Your task to perform on an android device: open app "ColorNote Notepad Notes" (install if not already installed) Image 0: 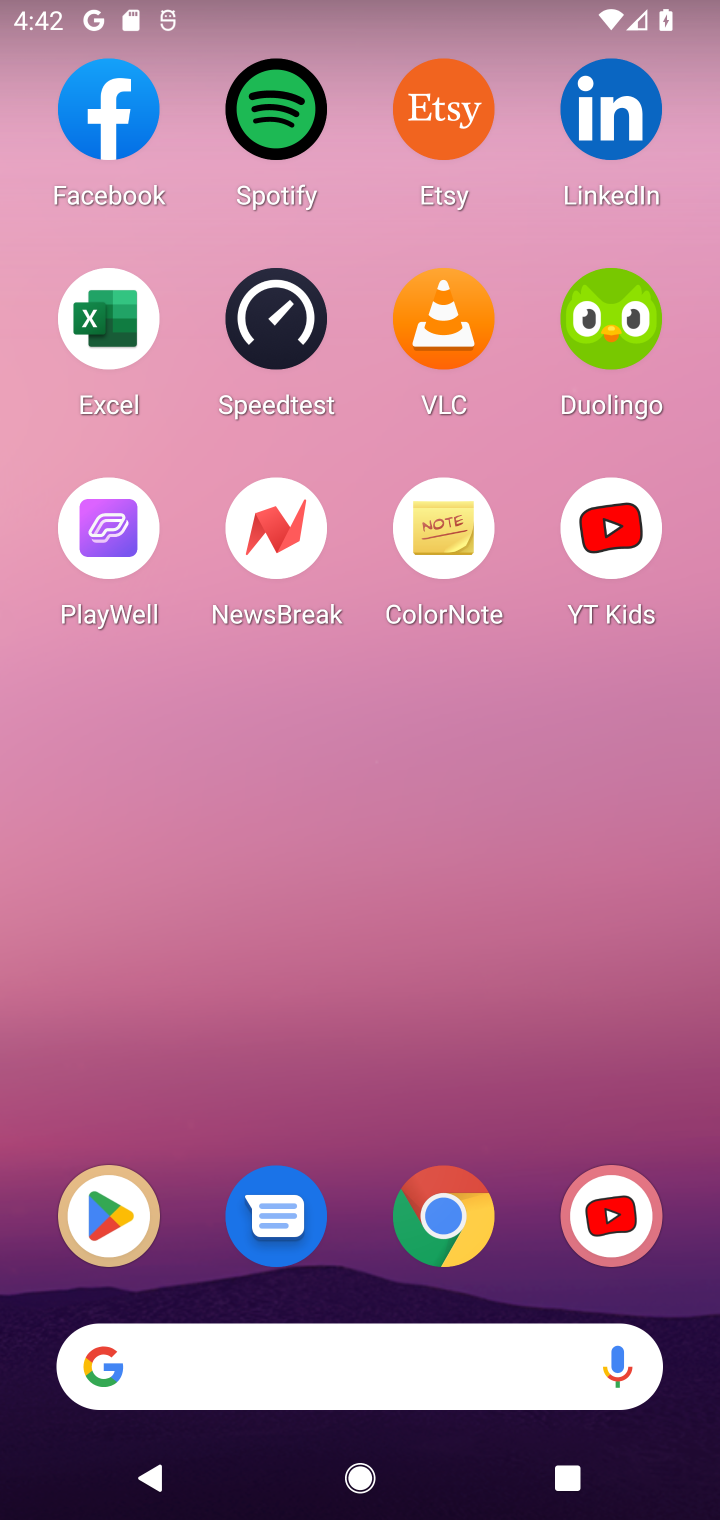
Step 0: click (87, 1218)
Your task to perform on an android device: open app "ColorNote Notepad Notes" (install if not already installed) Image 1: 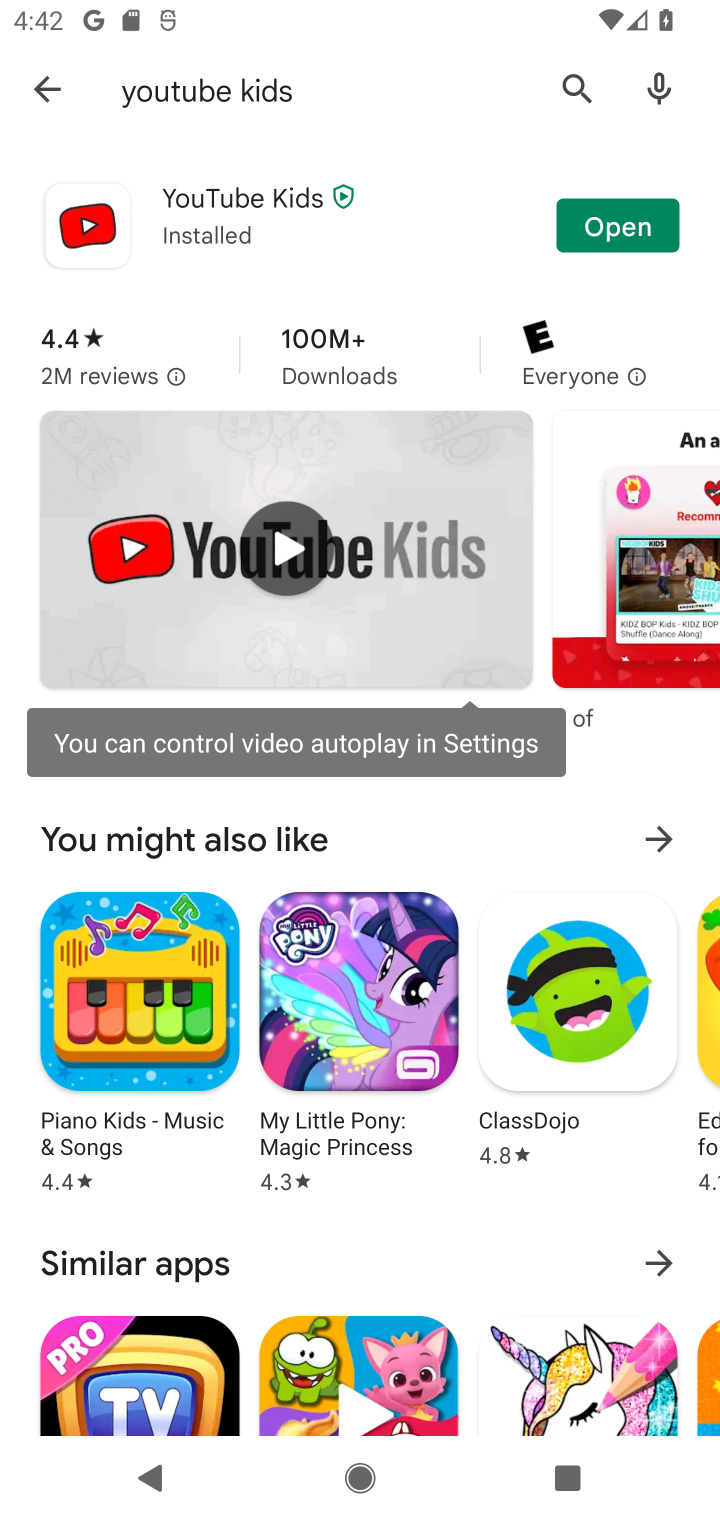
Step 1: click (575, 118)
Your task to perform on an android device: open app "ColorNote Notepad Notes" (install if not already installed) Image 2: 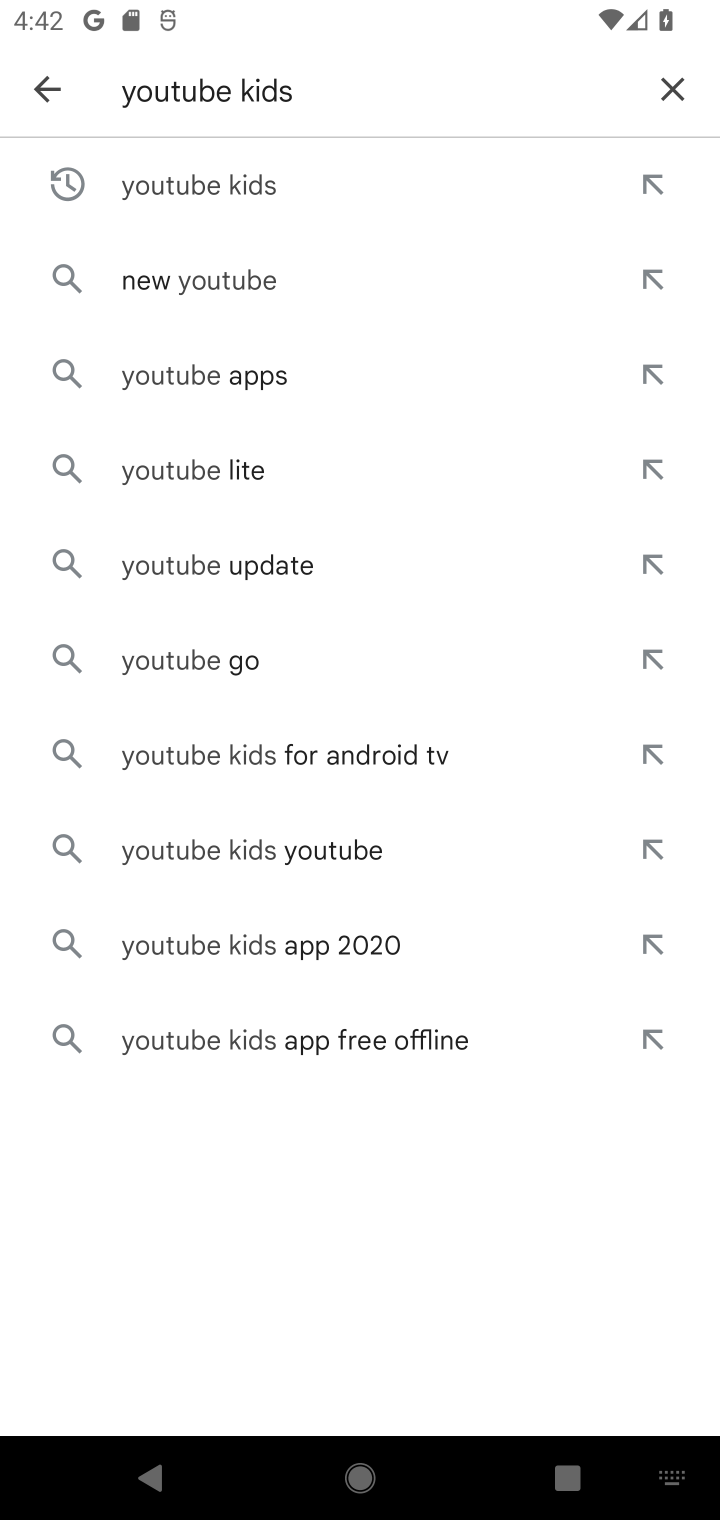
Step 2: click (662, 96)
Your task to perform on an android device: open app "ColorNote Notepad Notes" (install if not already installed) Image 3: 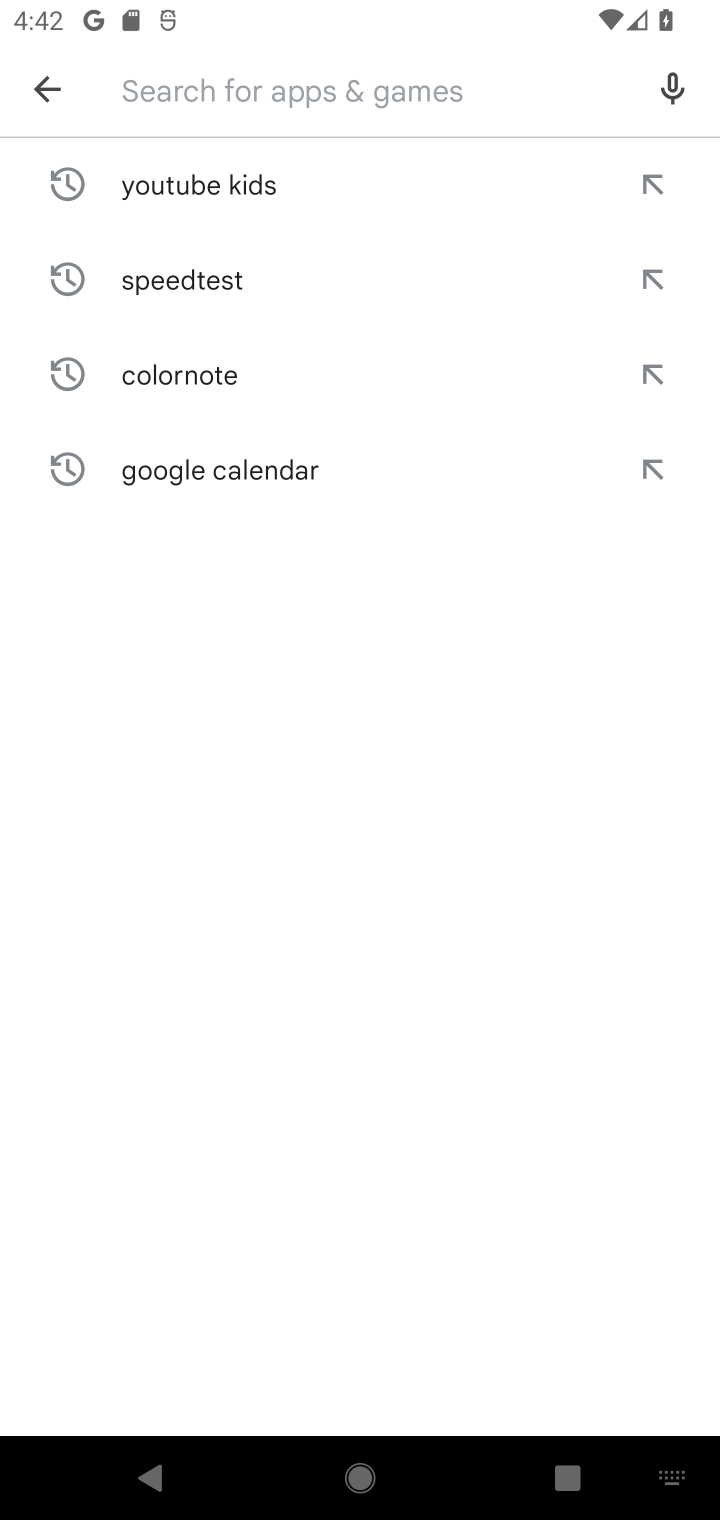
Step 3: type "colornotepad"
Your task to perform on an android device: open app "ColorNote Notepad Notes" (install if not already installed) Image 4: 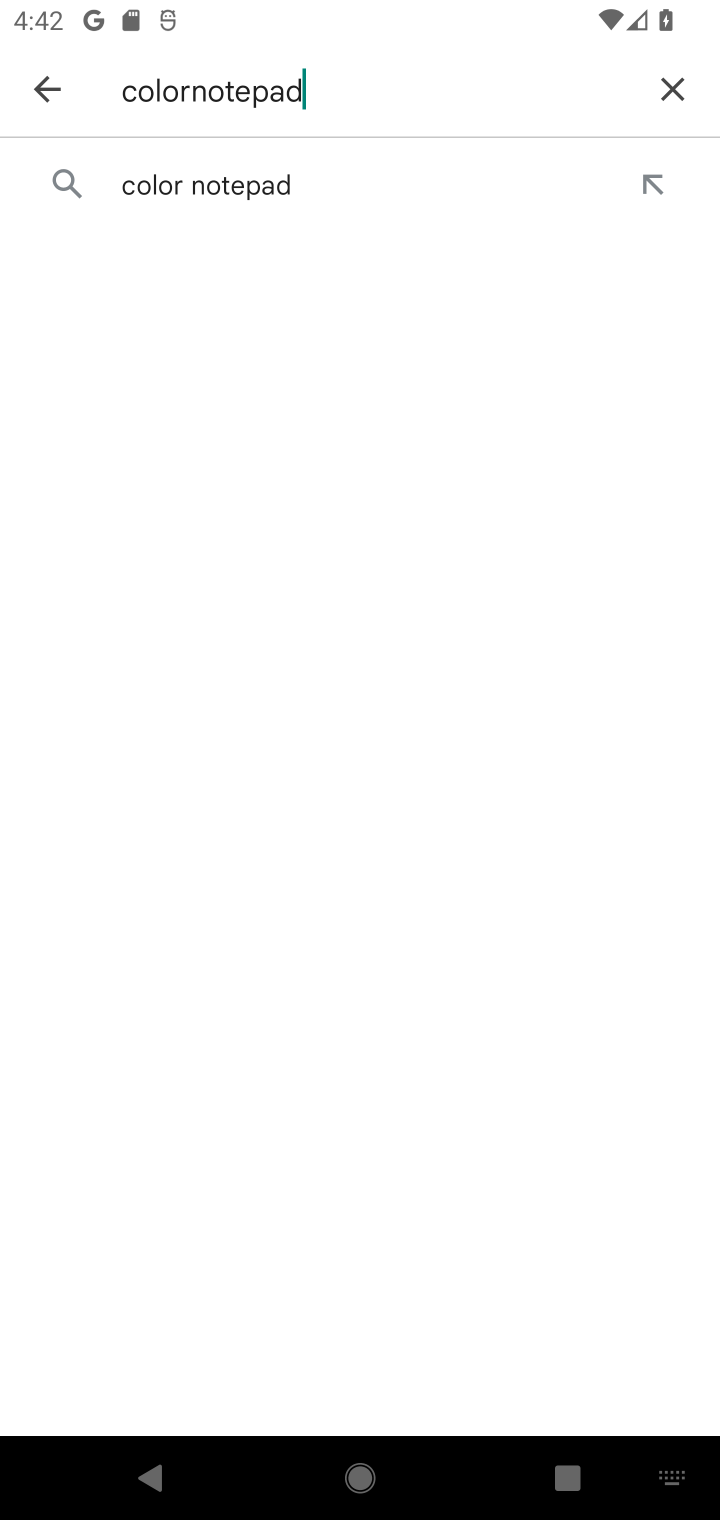
Step 4: click (331, 192)
Your task to perform on an android device: open app "ColorNote Notepad Notes" (install if not already installed) Image 5: 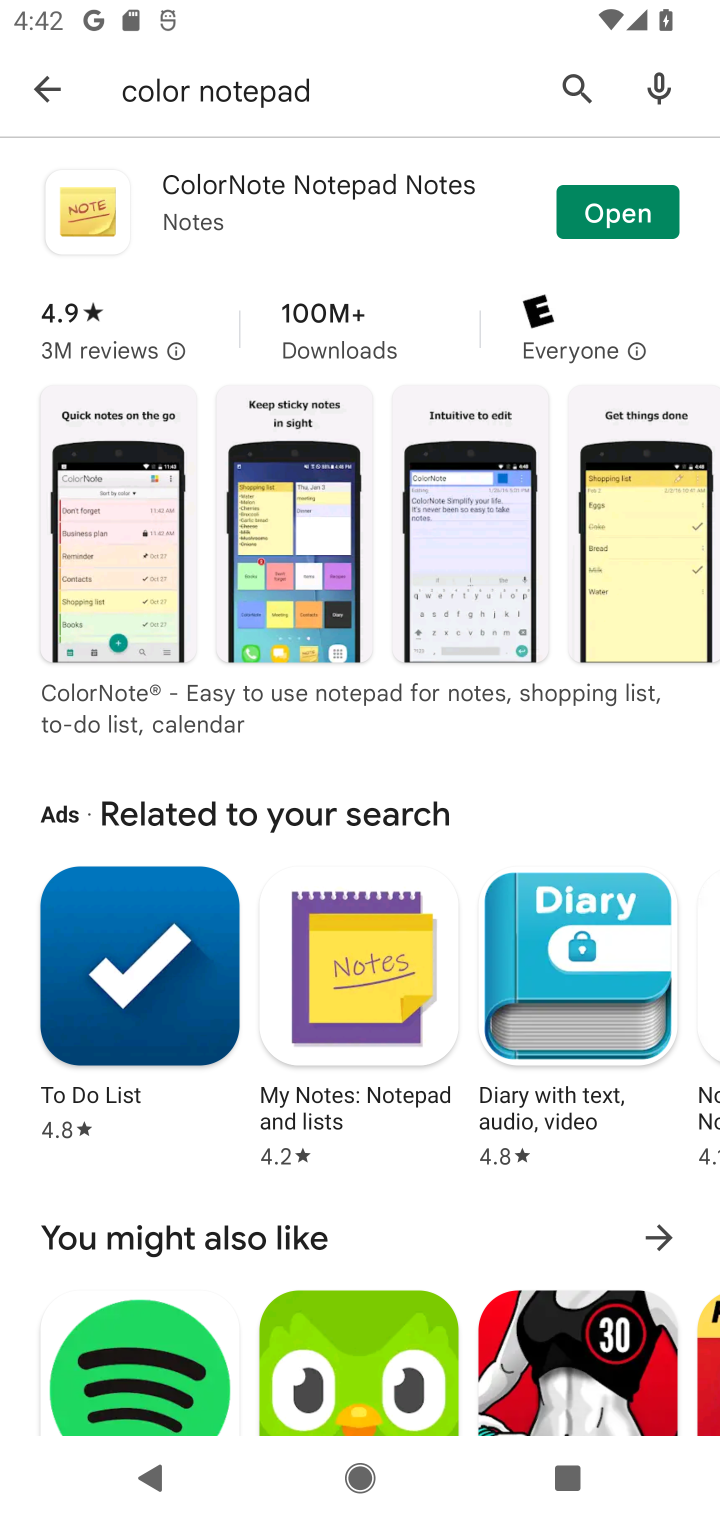
Step 5: click (610, 195)
Your task to perform on an android device: open app "ColorNote Notepad Notes" (install if not already installed) Image 6: 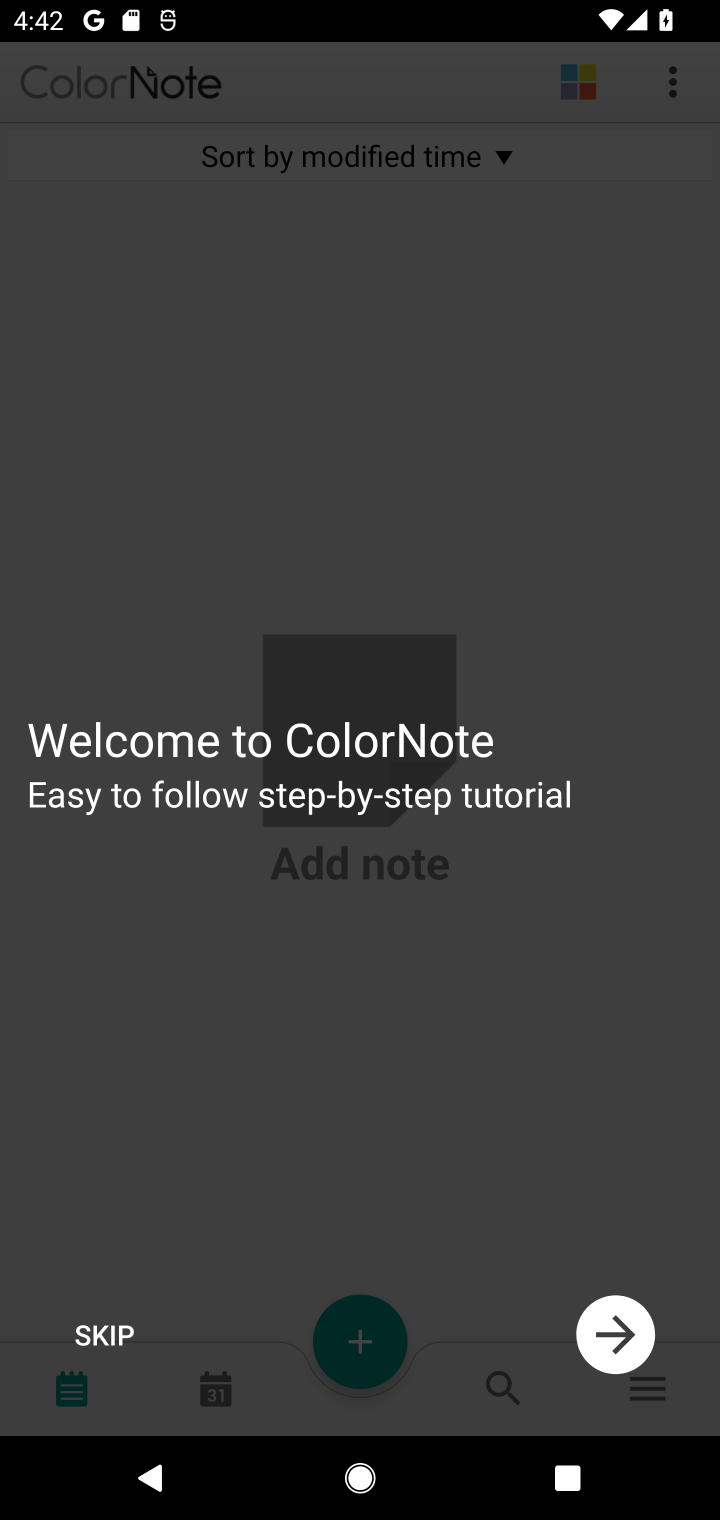
Step 6: click (355, 945)
Your task to perform on an android device: open app "ColorNote Notepad Notes" (install if not already installed) Image 7: 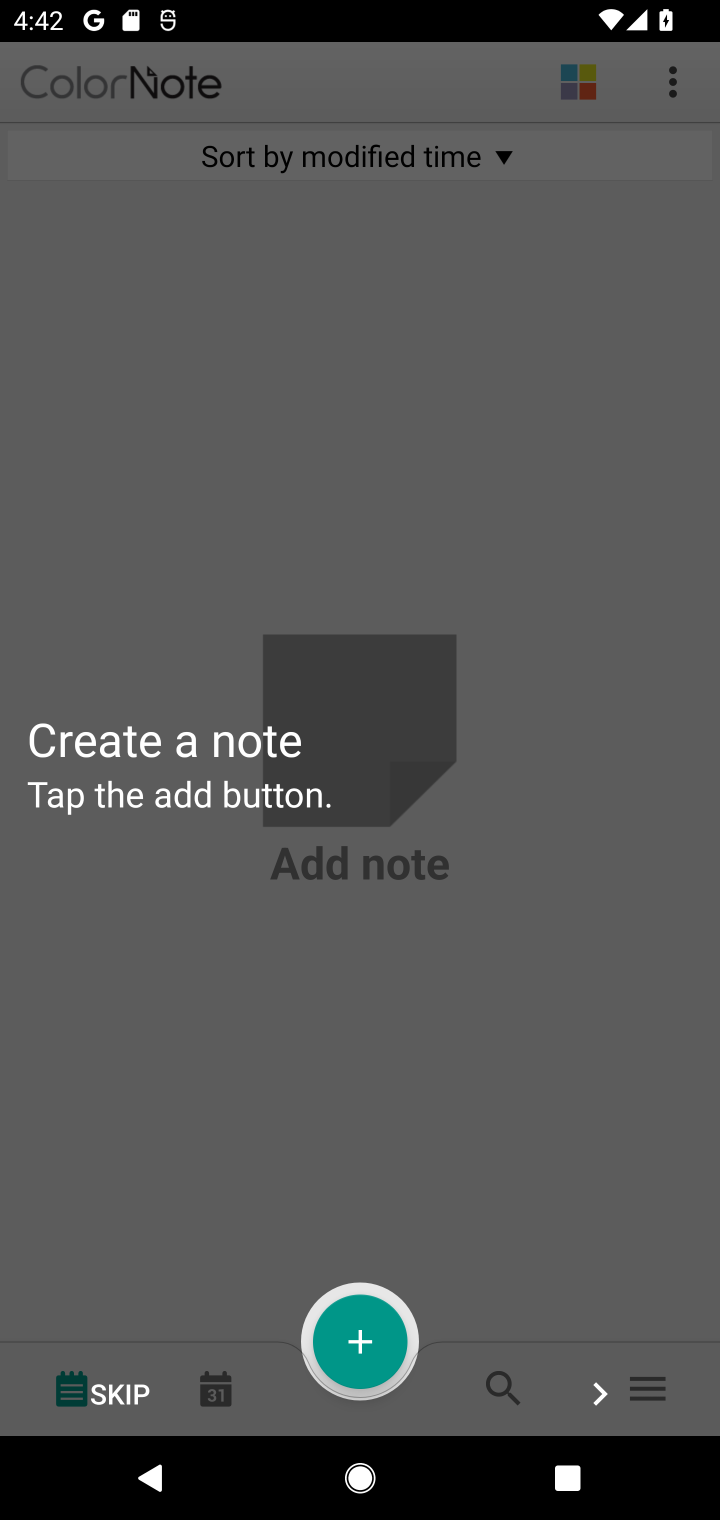
Step 7: click (149, 1386)
Your task to perform on an android device: open app "ColorNote Notepad Notes" (install if not already installed) Image 8: 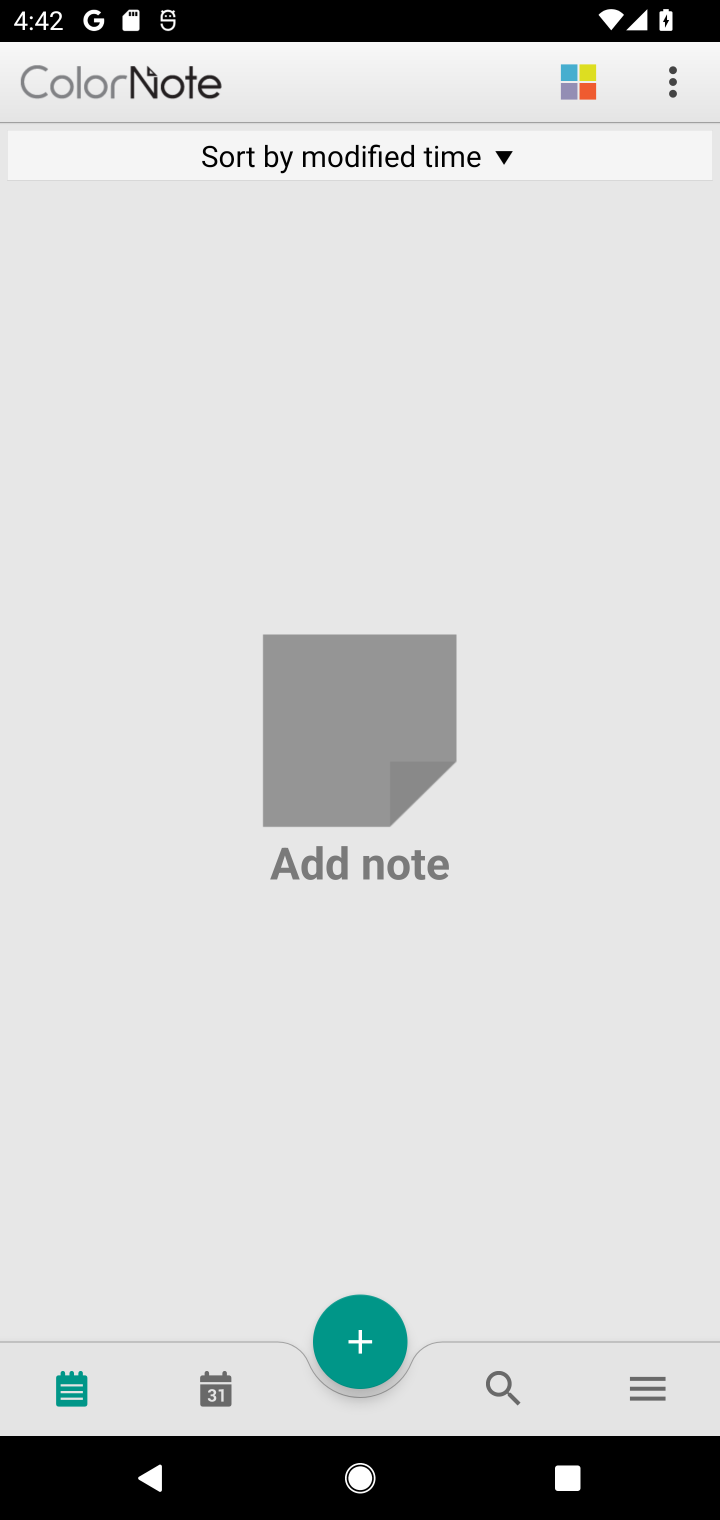
Step 8: task complete